Your task to perform on an android device: toggle data saver in the chrome app Image 0: 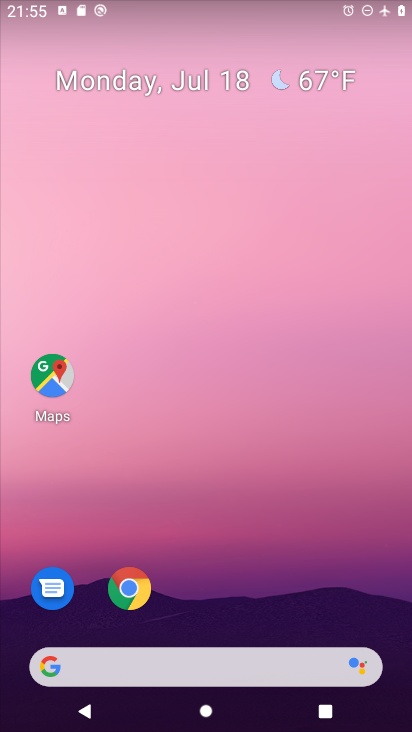
Step 0: click (131, 588)
Your task to perform on an android device: toggle data saver in the chrome app Image 1: 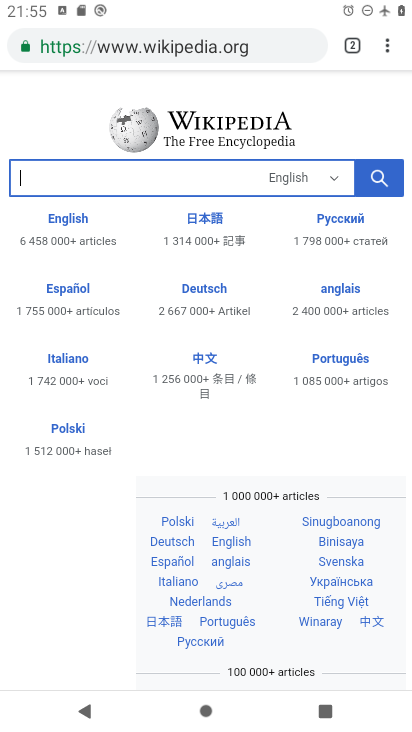
Step 1: click (386, 50)
Your task to perform on an android device: toggle data saver in the chrome app Image 2: 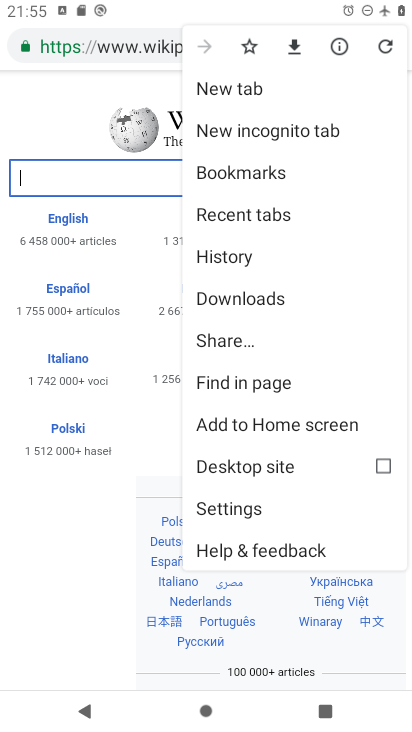
Step 2: click (234, 506)
Your task to perform on an android device: toggle data saver in the chrome app Image 3: 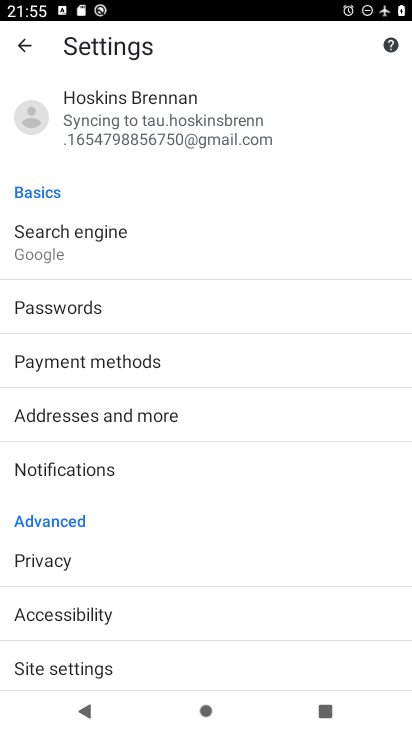
Step 3: drag from (140, 609) to (149, 319)
Your task to perform on an android device: toggle data saver in the chrome app Image 4: 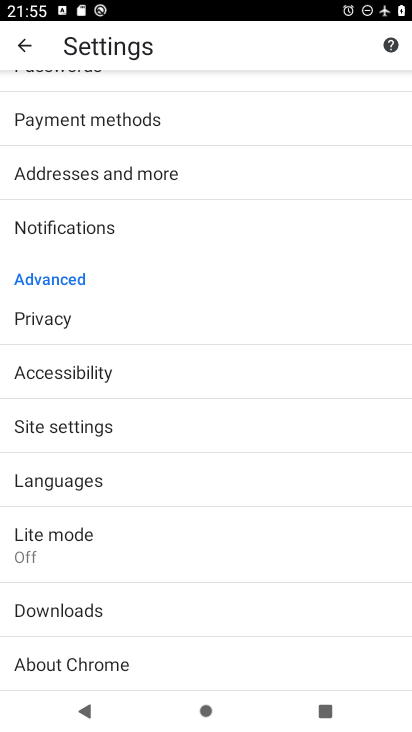
Step 4: click (41, 531)
Your task to perform on an android device: toggle data saver in the chrome app Image 5: 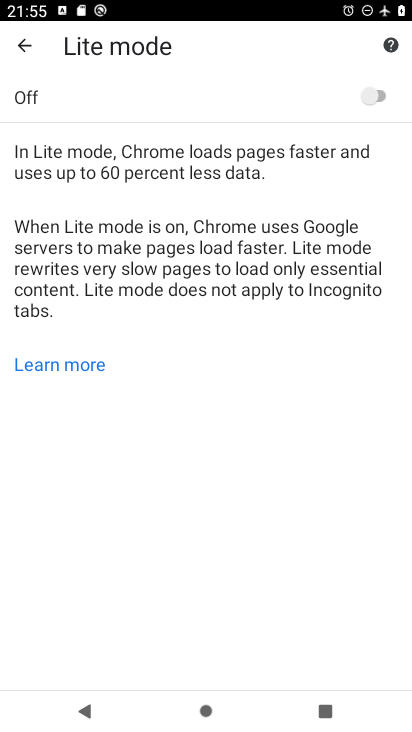
Step 5: click (382, 96)
Your task to perform on an android device: toggle data saver in the chrome app Image 6: 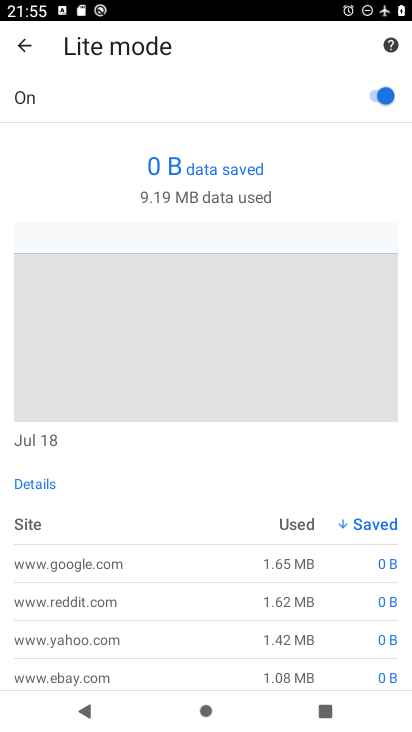
Step 6: task complete